Your task to perform on an android device: turn on location history Image 0: 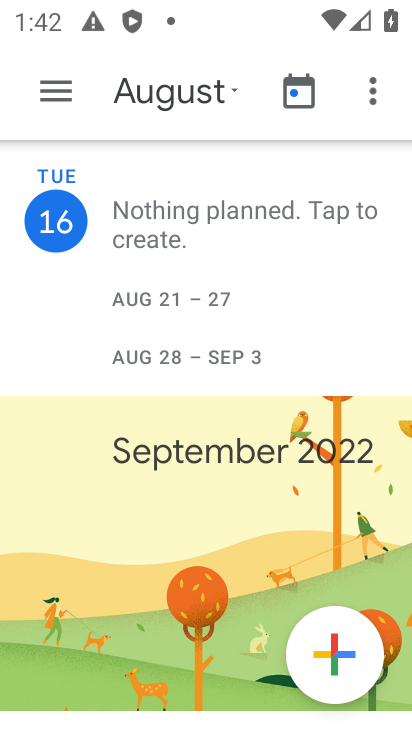
Step 0: press home button
Your task to perform on an android device: turn on location history Image 1: 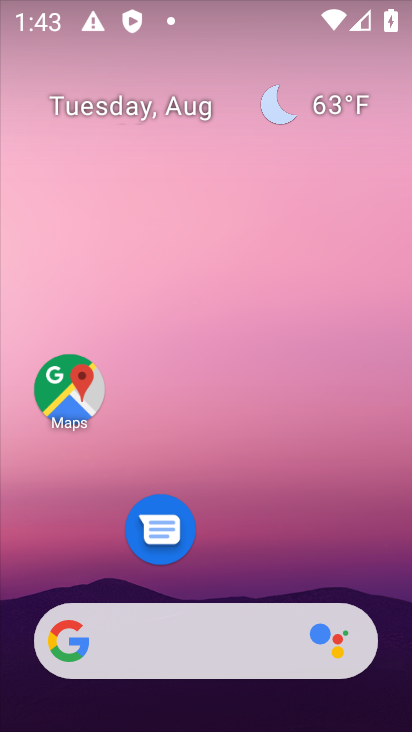
Step 1: drag from (273, 582) to (313, 124)
Your task to perform on an android device: turn on location history Image 2: 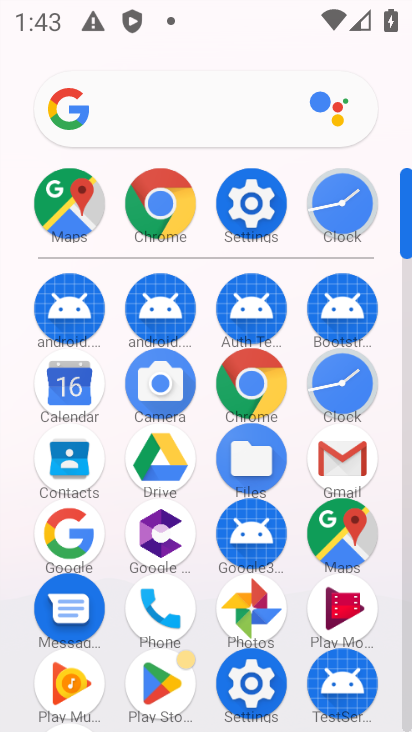
Step 2: click (237, 209)
Your task to perform on an android device: turn on location history Image 3: 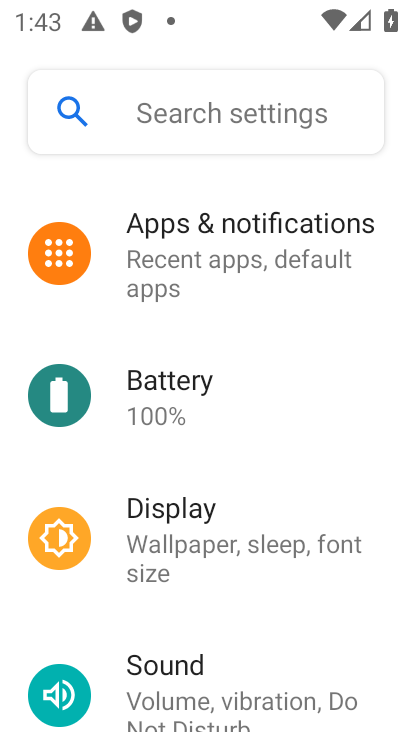
Step 3: click (260, 253)
Your task to perform on an android device: turn on location history Image 4: 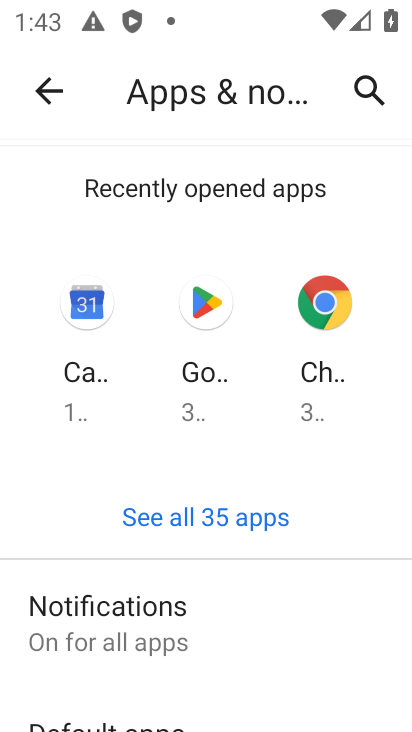
Step 4: task complete